Your task to perform on an android device: What is the recent news? Image 0: 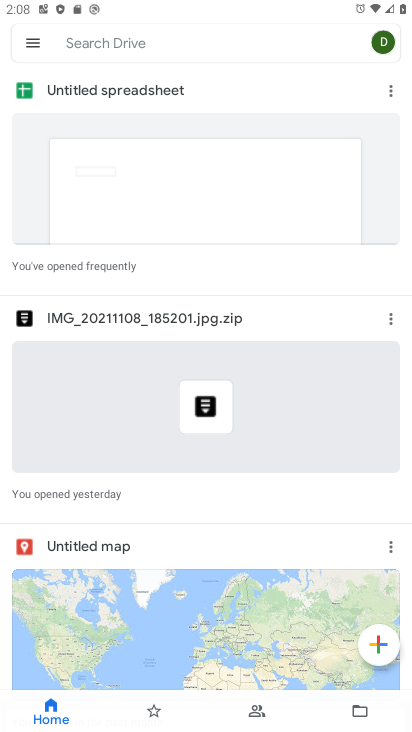
Step 0: press home button
Your task to perform on an android device: What is the recent news? Image 1: 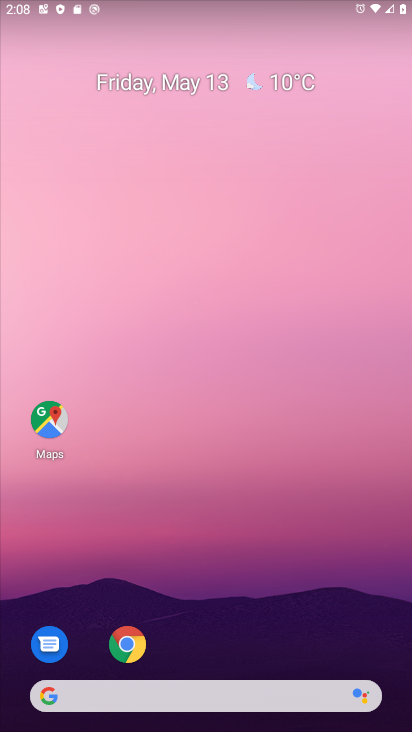
Step 1: task complete